Your task to perform on an android device: turn off translation in the chrome app Image 0: 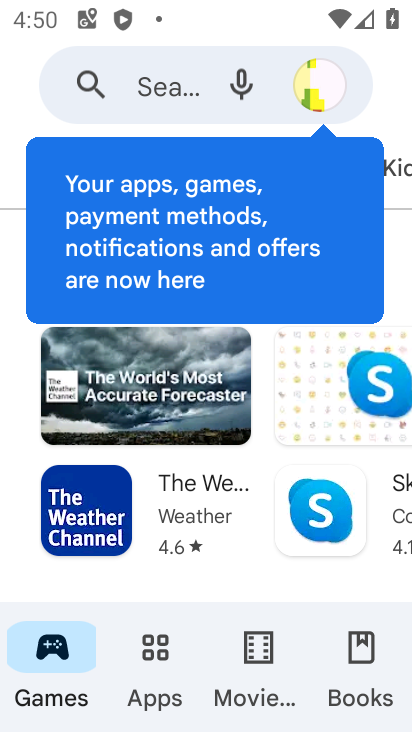
Step 0: press back button
Your task to perform on an android device: turn off translation in the chrome app Image 1: 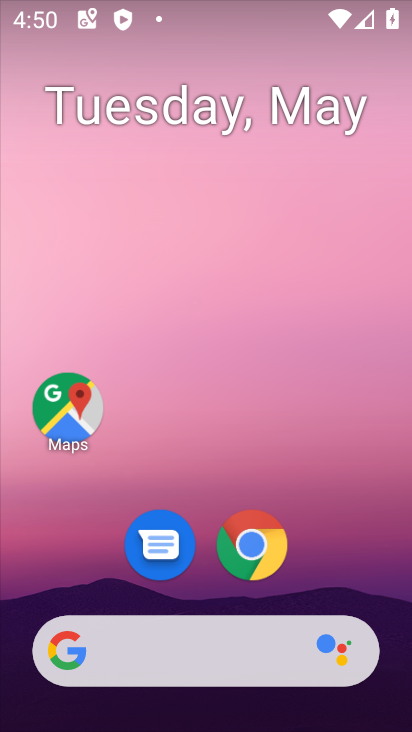
Step 1: drag from (323, 537) to (264, 130)
Your task to perform on an android device: turn off translation in the chrome app Image 2: 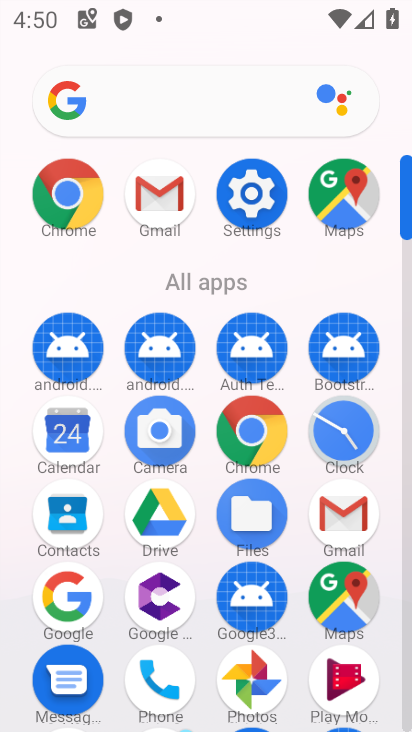
Step 2: drag from (25, 601) to (24, 279)
Your task to perform on an android device: turn off translation in the chrome app Image 3: 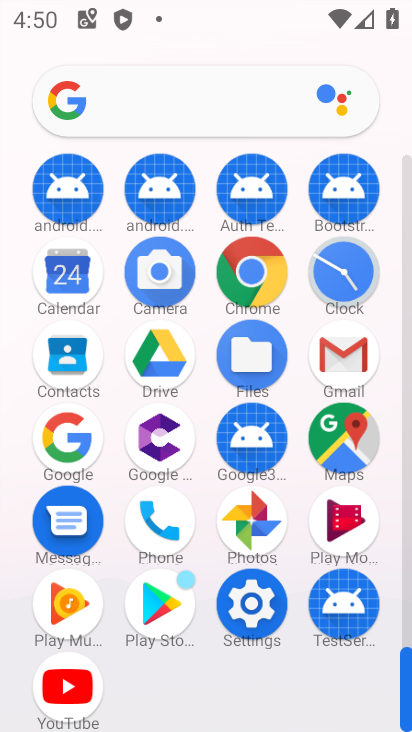
Step 3: click (255, 274)
Your task to perform on an android device: turn off translation in the chrome app Image 4: 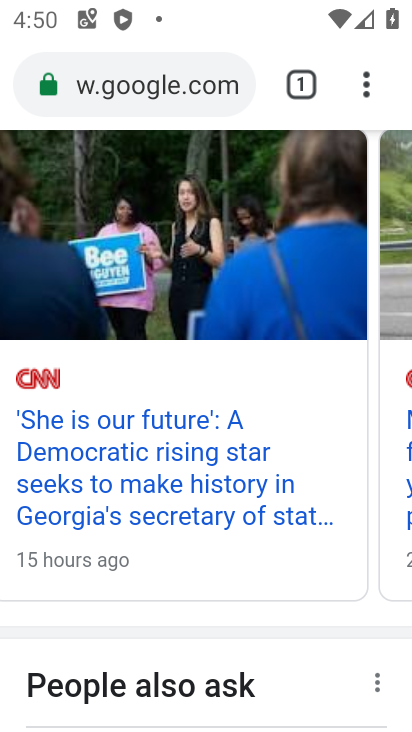
Step 4: drag from (364, 83) to (169, 591)
Your task to perform on an android device: turn off translation in the chrome app Image 5: 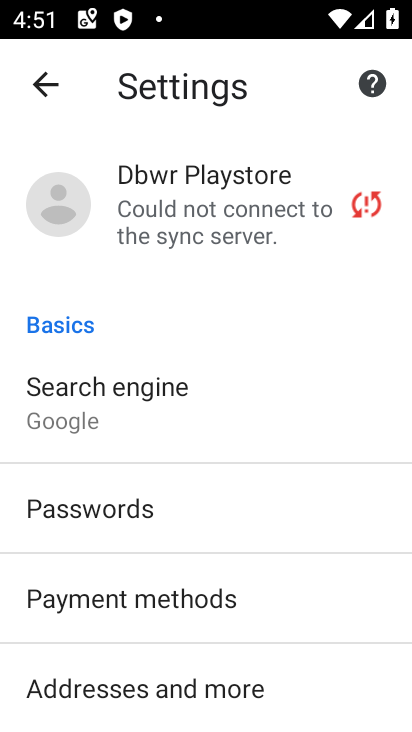
Step 5: drag from (217, 671) to (222, 251)
Your task to perform on an android device: turn off translation in the chrome app Image 6: 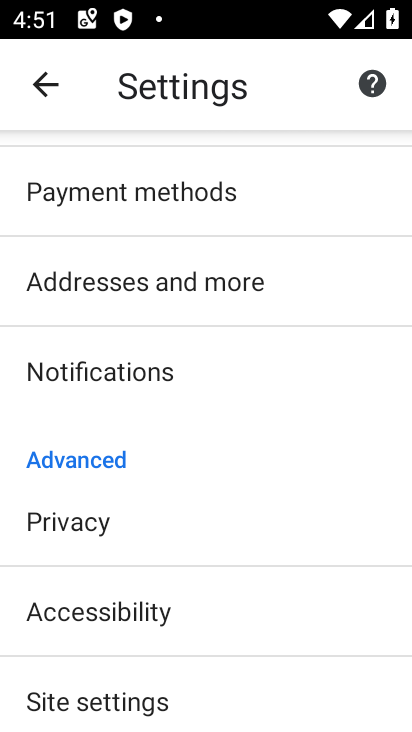
Step 6: drag from (206, 565) to (238, 218)
Your task to perform on an android device: turn off translation in the chrome app Image 7: 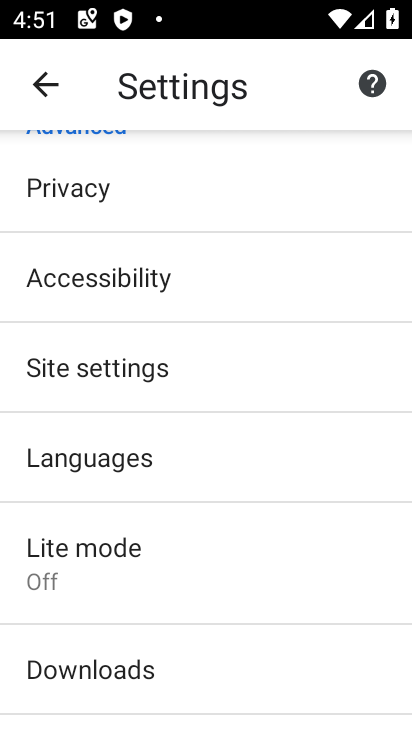
Step 7: click (146, 472)
Your task to perform on an android device: turn off translation in the chrome app Image 8: 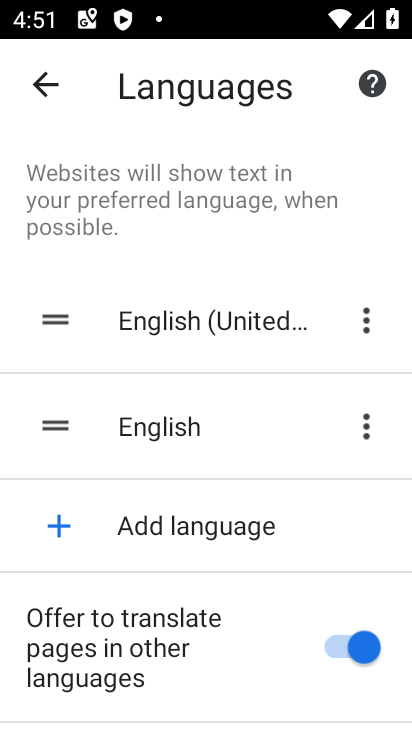
Step 8: click (348, 643)
Your task to perform on an android device: turn off translation in the chrome app Image 9: 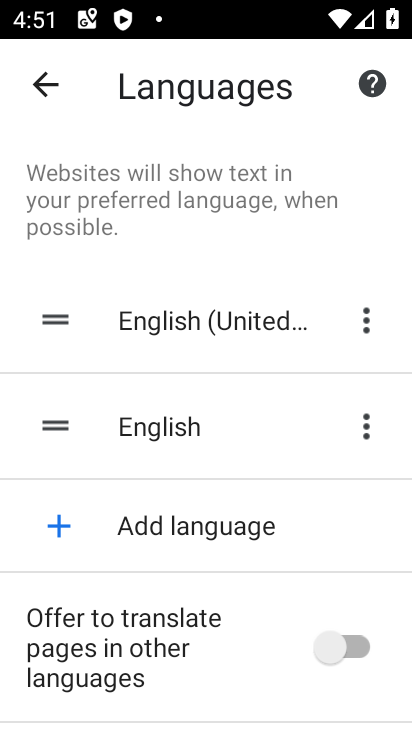
Step 9: task complete